Your task to perform on an android device: allow cookies in the chrome app Image 0: 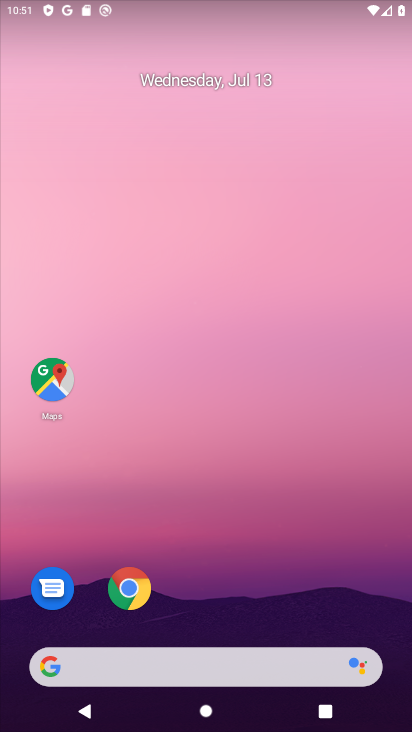
Step 0: click (145, 606)
Your task to perform on an android device: allow cookies in the chrome app Image 1: 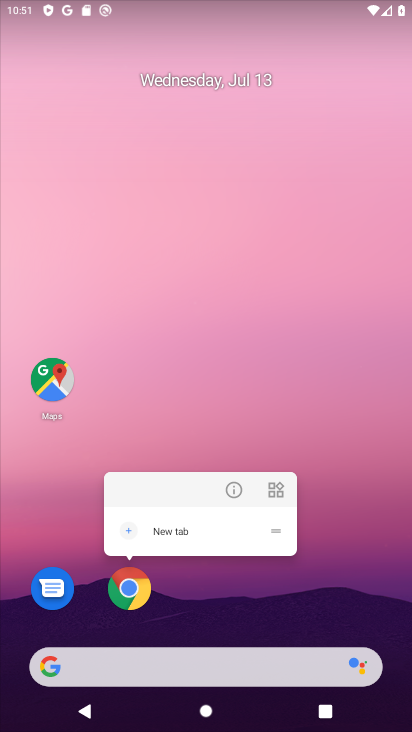
Step 1: click (141, 602)
Your task to perform on an android device: allow cookies in the chrome app Image 2: 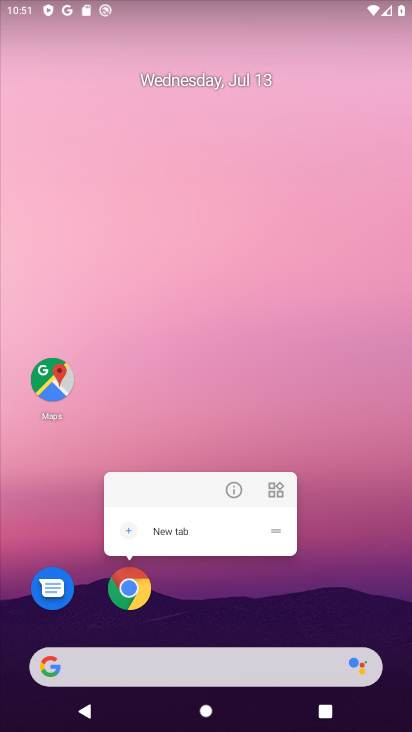
Step 2: click (115, 598)
Your task to perform on an android device: allow cookies in the chrome app Image 3: 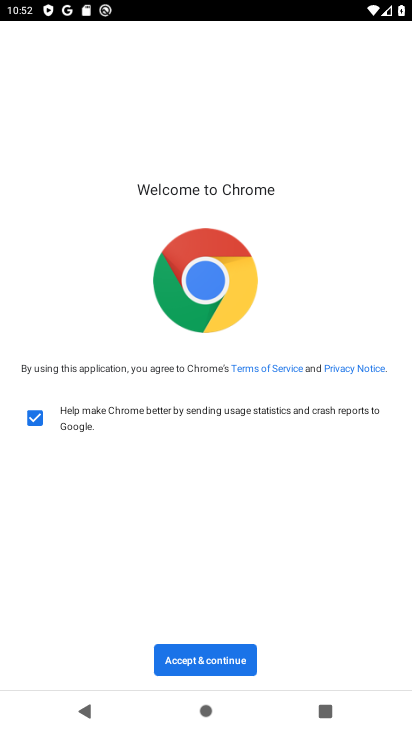
Step 3: click (228, 648)
Your task to perform on an android device: allow cookies in the chrome app Image 4: 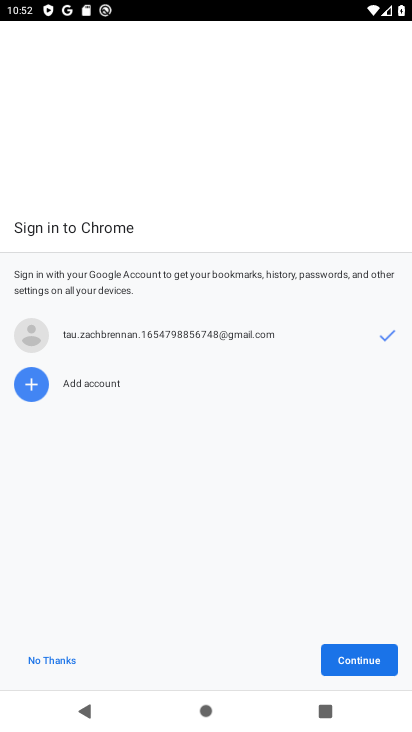
Step 4: click (352, 646)
Your task to perform on an android device: allow cookies in the chrome app Image 5: 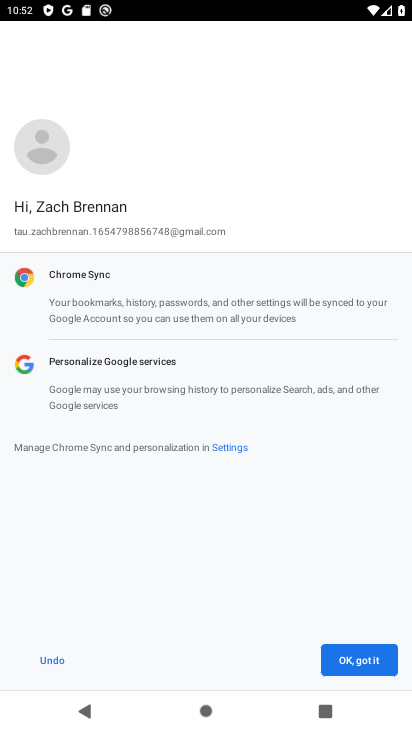
Step 5: click (349, 653)
Your task to perform on an android device: allow cookies in the chrome app Image 6: 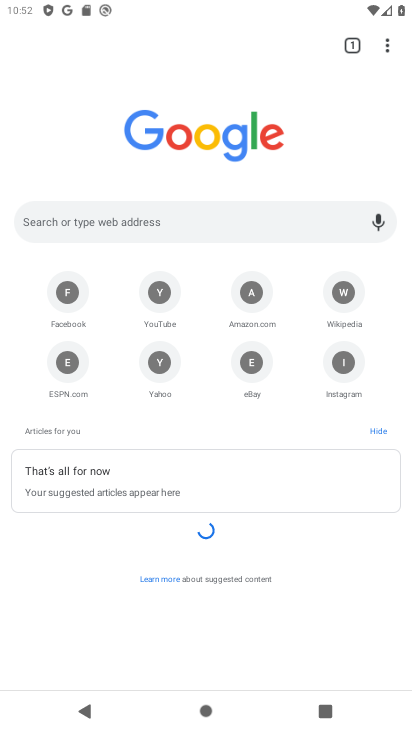
Step 6: drag from (385, 34) to (283, 374)
Your task to perform on an android device: allow cookies in the chrome app Image 7: 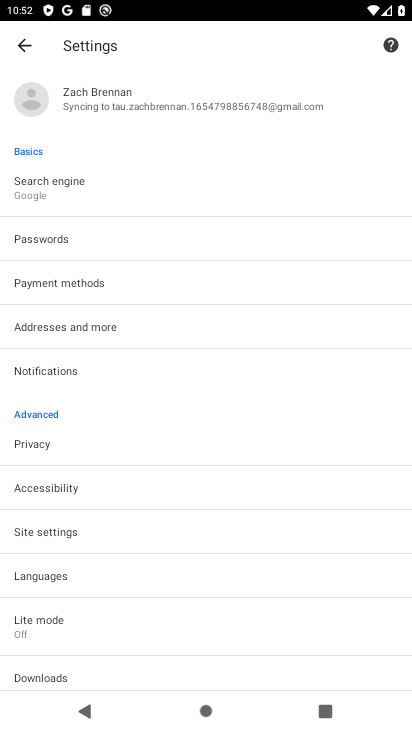
Step 7: click (107, 538)
Your task to perform on an android device: allow cookies in the chrome app Image 8: 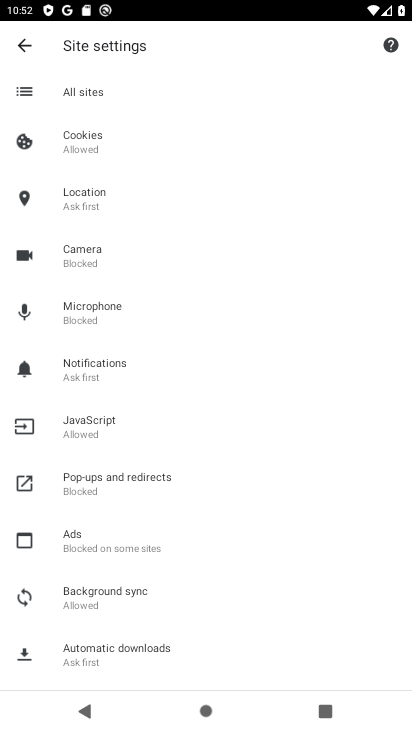
Step 8: click (192, 139)
Your task to perform on an android device: allow cookies in the chrome app Image 9: 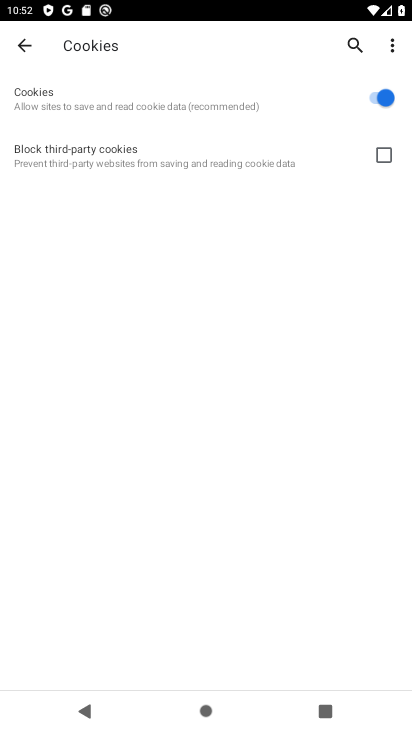
Step 9: task complete